Your task to perform on an android device: Find coffee shops on Maps Image 0: 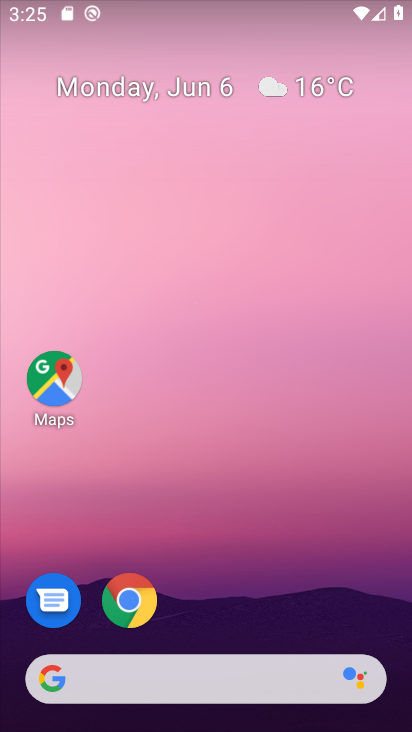
Step 0: drag from (289, 571) to (222, 20)
Your task to perform on an android device: Find coffee shops on Maps Image 1: 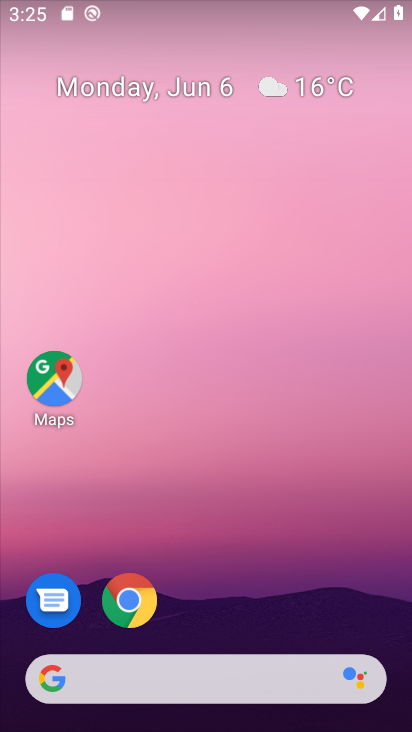
Step 1: drag from (243, 581) to (172, 335)
Your task to perform on an android device: Find coffee shops on Maps Image 2: 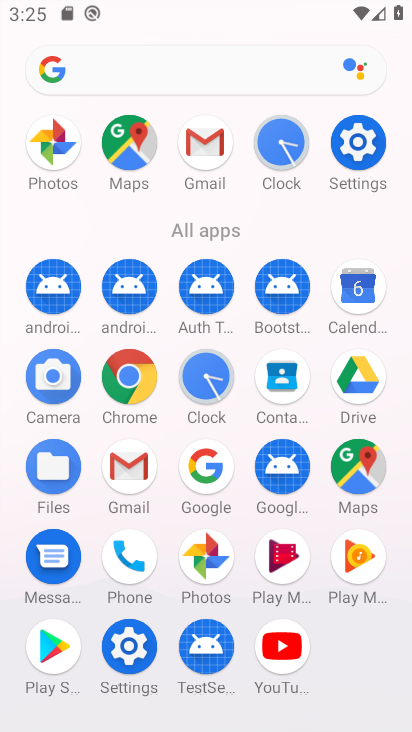
Step 2: drag from (259, 538) to (182, 346)
Your task to perform on an android device: Find coffee shops on Maps Image 3: 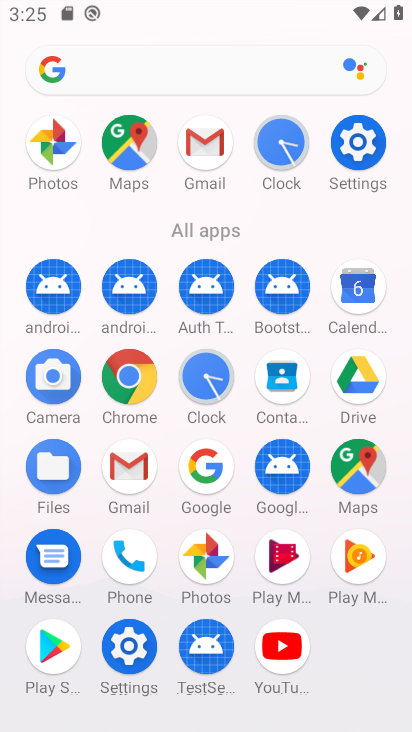
Step 3: click (365, 474)
Your task to perform on an android device: Find coffee shops on Maps Image 4: 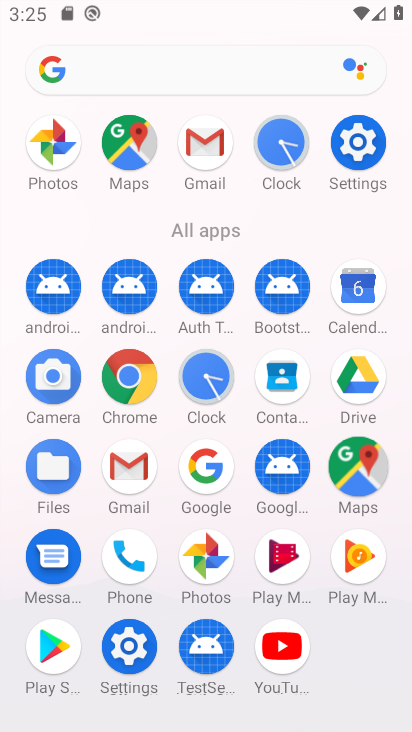
Step 4: click (364, 473)
Your task to perform on an android device: Find coffee shops on Maps Image 5: 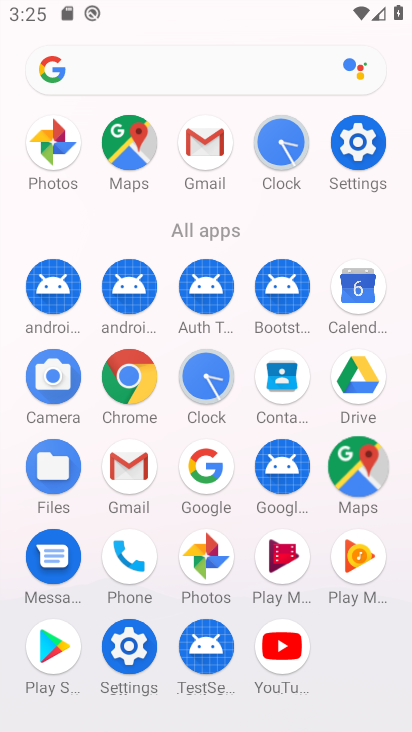
Step 5: click (350, 487)
Your task to perform on an android device: Find coffee shops on Maps Image 6: 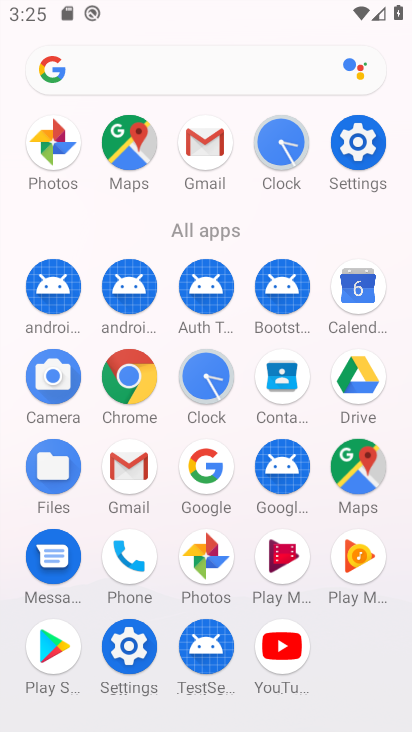
Step 6: click (355, 456)
Your task to perform on an android device: Find coffee shops on Maps Image 7: 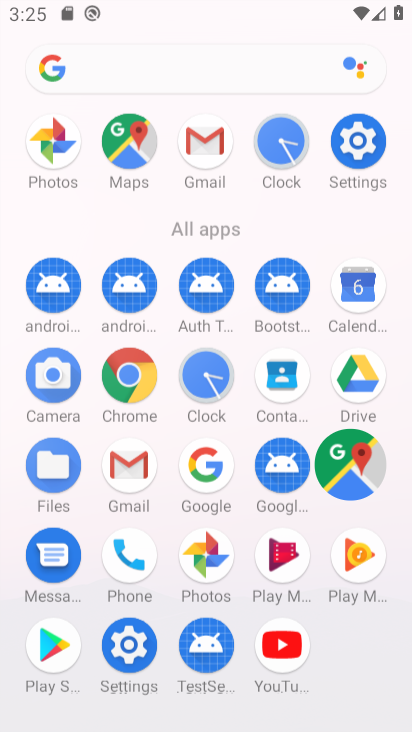
Step 7: click (352, 476)
Your task to perform on an android device: Find coffee shops on Maps Image 8: 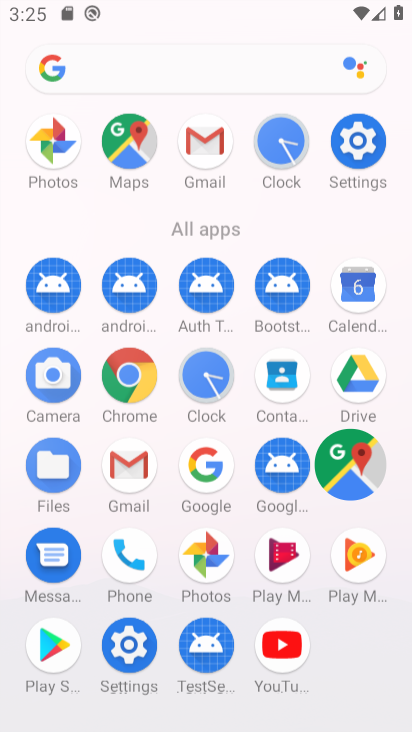
Step 8: click (356, 459)
Your task to perform on an android device: Find coffee shops on Maps Image 9: 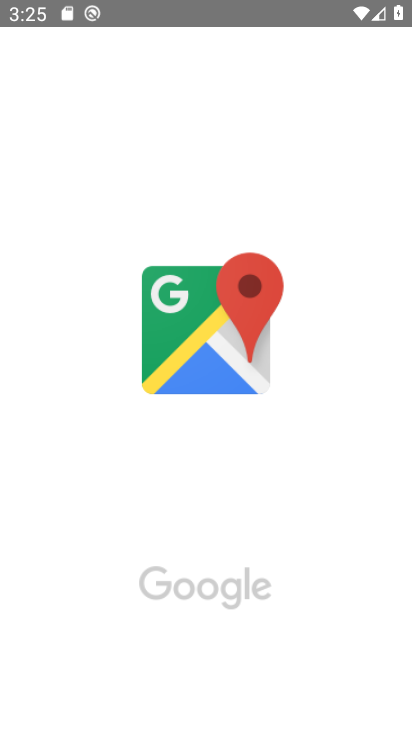
Step 9: click (357, 455)
Your task to perform on an android device: Find coffee shops on Maps Image 10: 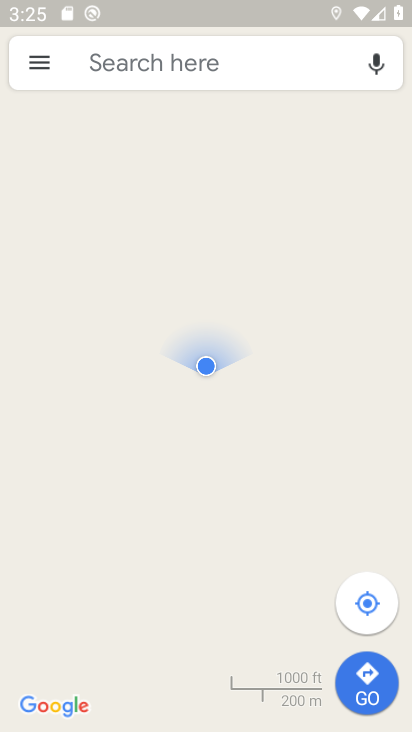
Step 10: click (89, 53)
Your task to perform on an android device: Find coffee shops on Maps Image 11: 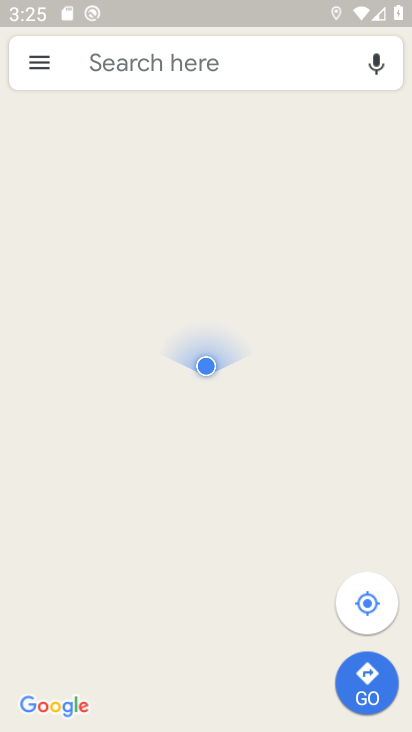
Step 11: click (89, 53)
Your task to perform on an android device: Find coffee shops on Maps Image 12: 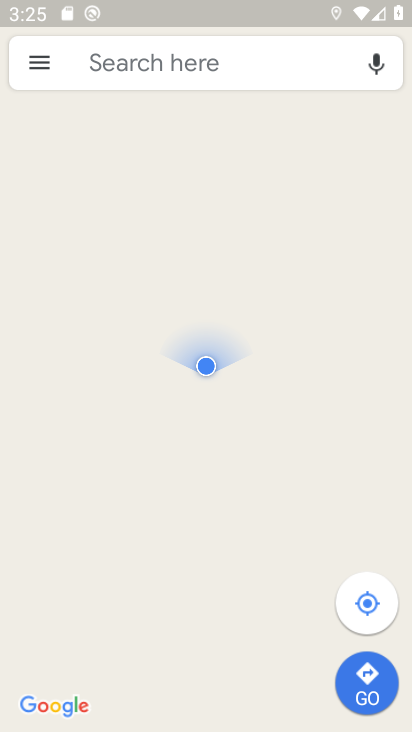
Step 12: click (89, 53)
Your task to perform on an android device: Find coffee shops on Maps Image 13: 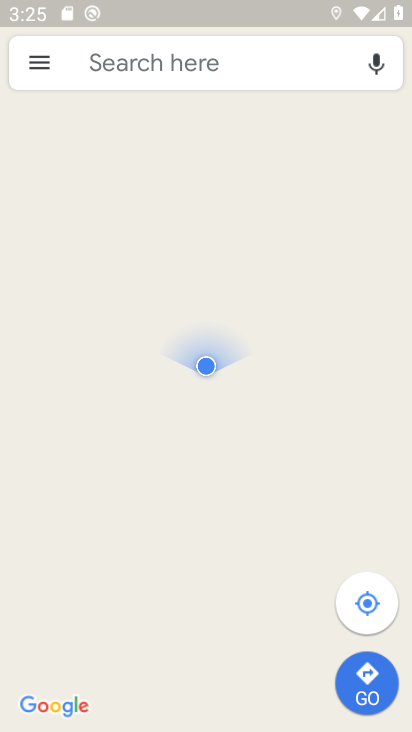
Step 13: click (89, 53)
Your task to perform on an android device: Find coffee shops on Maps Image 14: 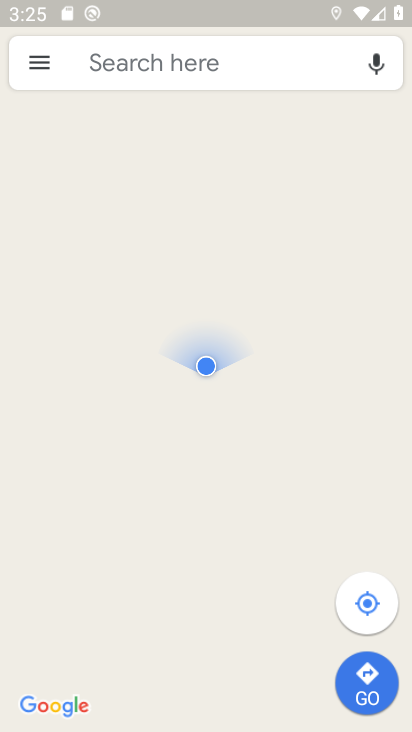
Step 14: click (90, 52)
Your task to perform on an android device: Find coffee shops on Maps Image 15: 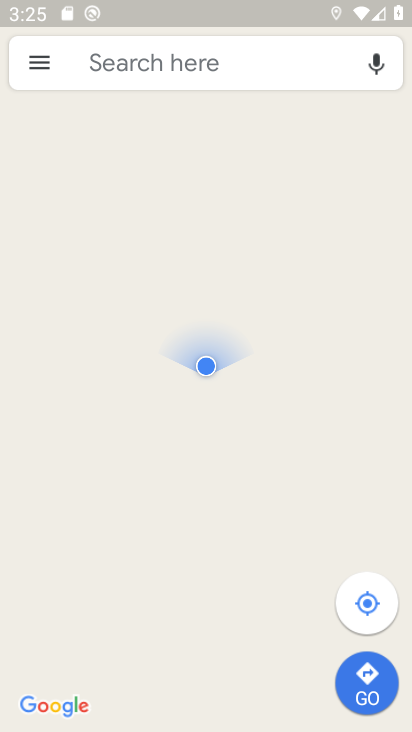
Step 15: click (104, 64)
Your task to perform on an android device: Find coffee shops on Maps Image 16: 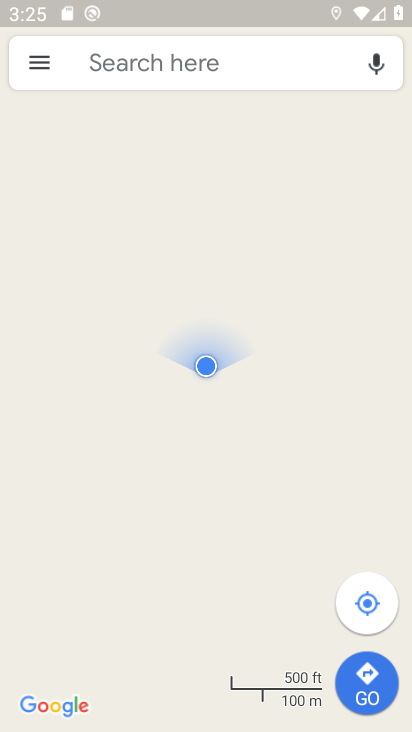
Step 16: click (105, 62)
Your task to perform on an android device: Find coffee shops on Maps Image 17: 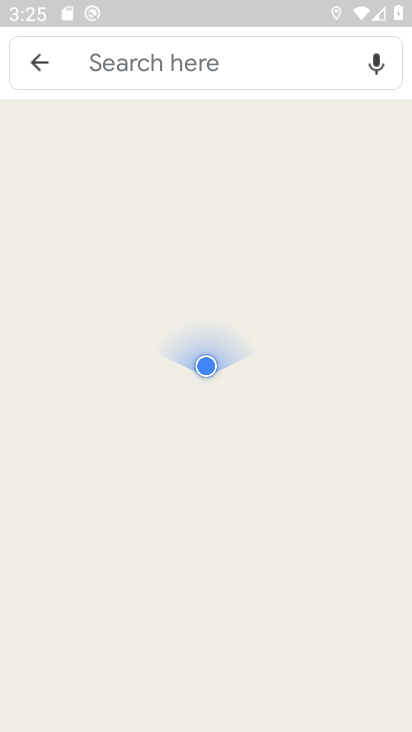
Step 17: click (105, 58)
Your task to perform on an android device: Find coffee shops on Maps Image 18: 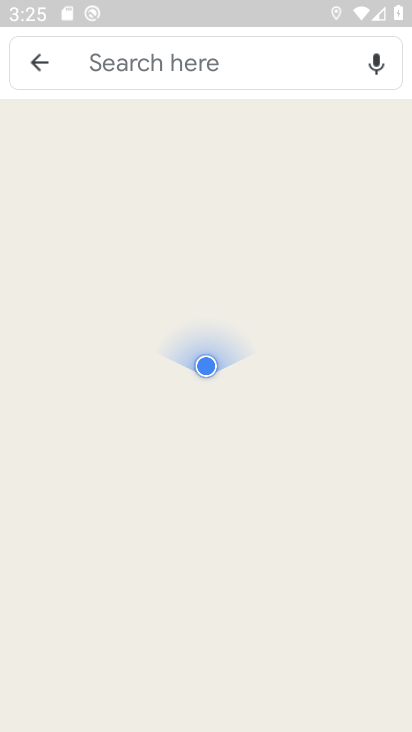
Step 18: click (105, 58)
Your task to perform on an android device: Find coffee shops on Maps Image 19: 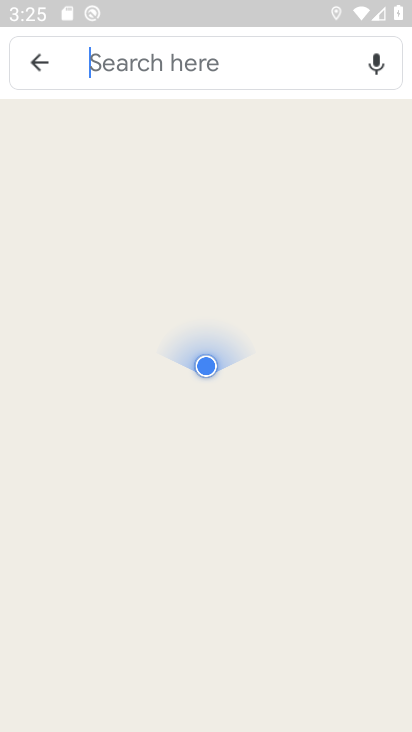
Step 19: click (95, 77)
Your task to perform on an android device: Find coffee shops on Maps Image 20: 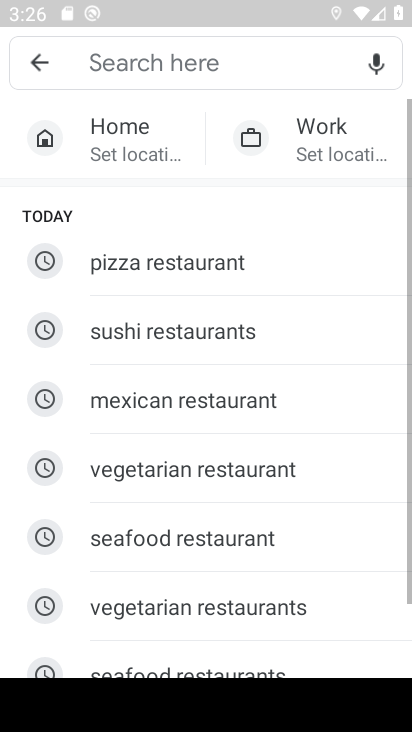
Step 20: type "coffee"
Your task to perform on an android device: Find coffee shops on Maps Image 21: 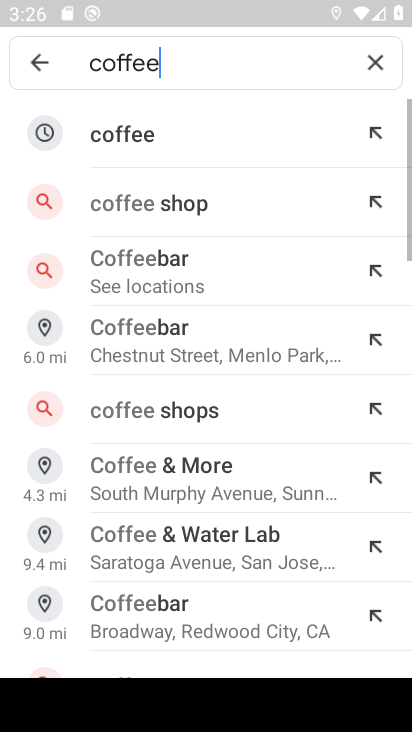
Step 21: click (133, 144)
Your task to perform on an android device: Find coffee shops on Maps Image 22: 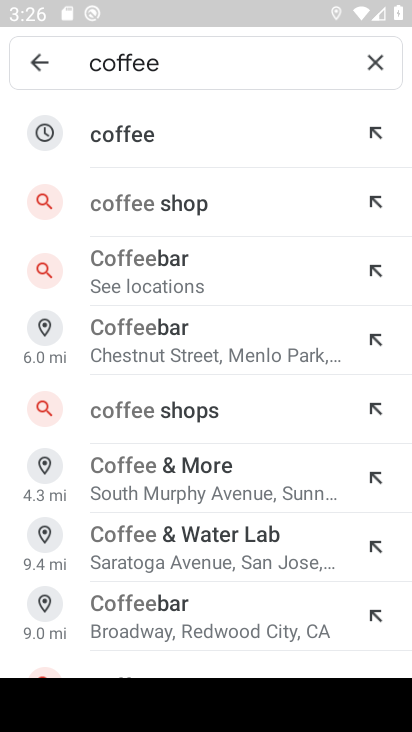
Step 22: click (129, 136)
Your task to perform on an android device: Find coffee shops on Maps Image 23: 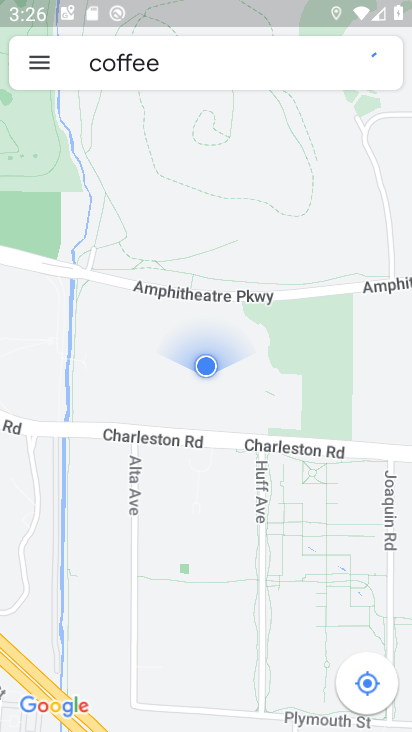
Step 23: task complete